Your task to perform on an android device: Search for Italian restaurants on Maps Image 0: 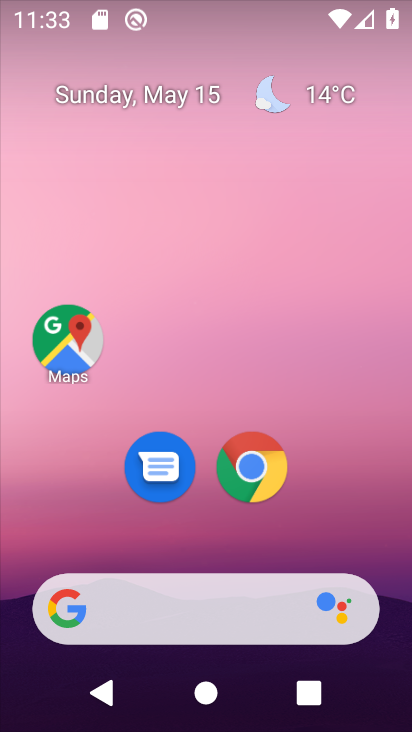
Step 0: drag from (211, 513) to (207, 171)
Your task to perform on an android device: Search for Italian restaurants on Maps Image 1: 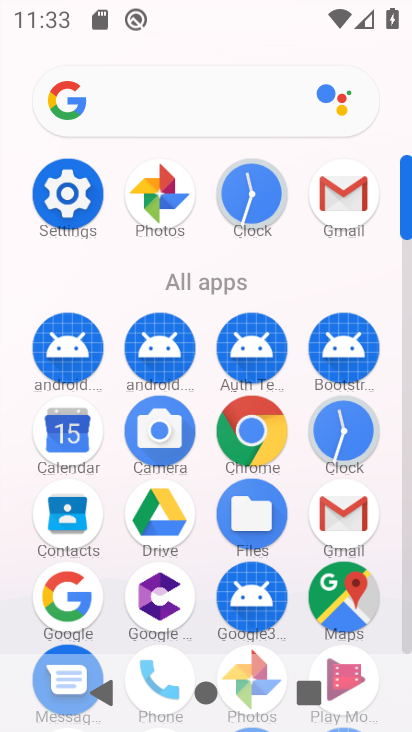
Step 1: click (337, 599)
Your task to perform on an android device: Search for Italian restaurants on Maps Image 2: 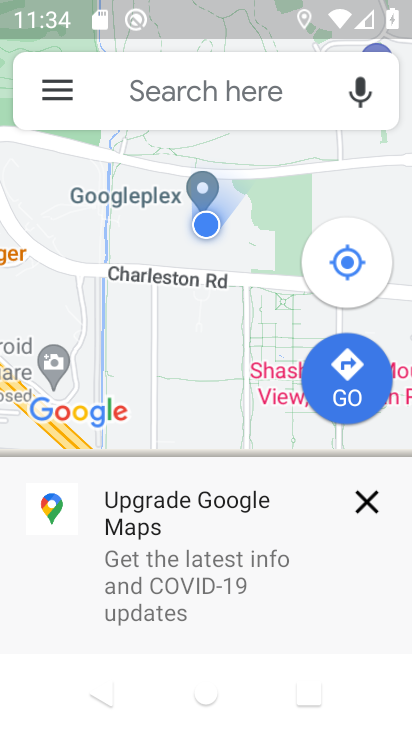
Step 2: click (367, 502)
Your task to perform on an android device: Search for Italian restaurants on Maps Image 3: 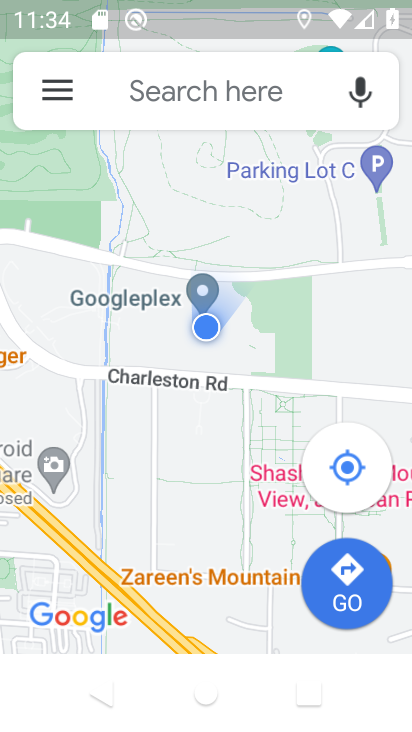
Step 3: click (159, 94)
Your task to perform on an android device: Search for Italian restaurants on Maps Image 4: 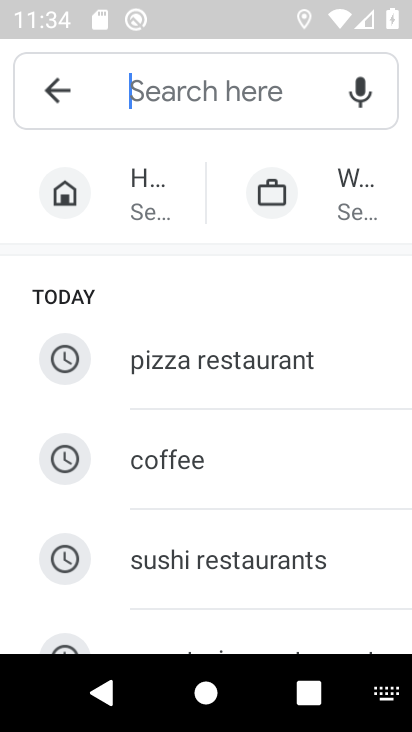
Step 4: drag from (202, 546) to (212, 202)
Your task to perform on an android device: Search for Italian restaurants on Maps Image 5: 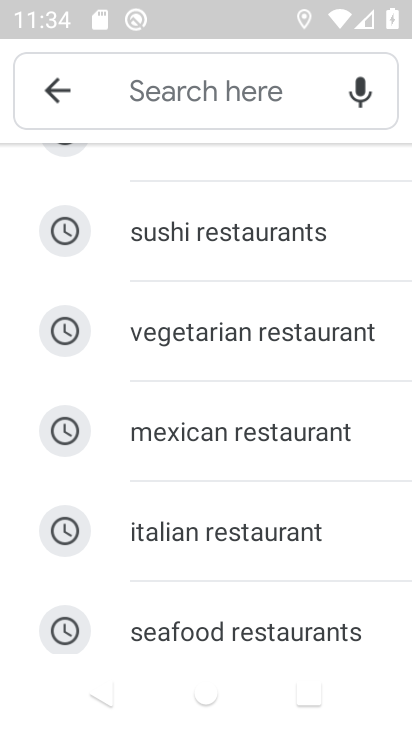
Step 5: click (202, 528)
Your task to perform on an android device: Search for Italian restaurants on Maps Image 6: 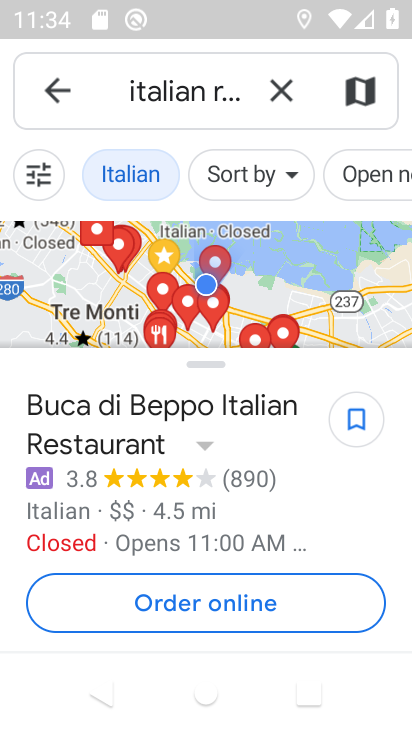
Step 6: task complete